Your task to perform on an android device: Turn off the flashlight Image 0: 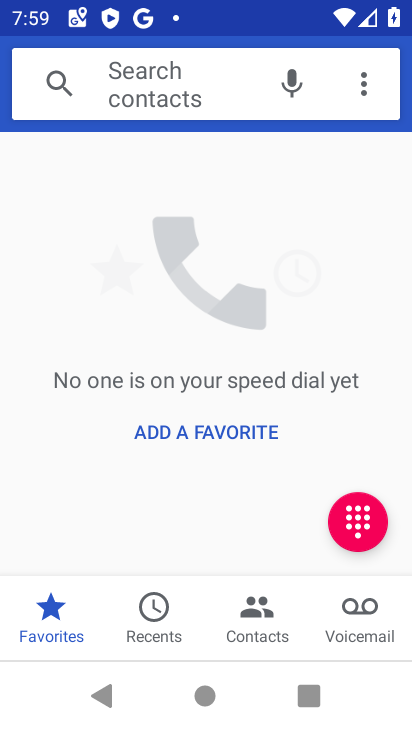
Step 0: press back button
Your task to perform on an android device: Turn off the flashlight Image 1: 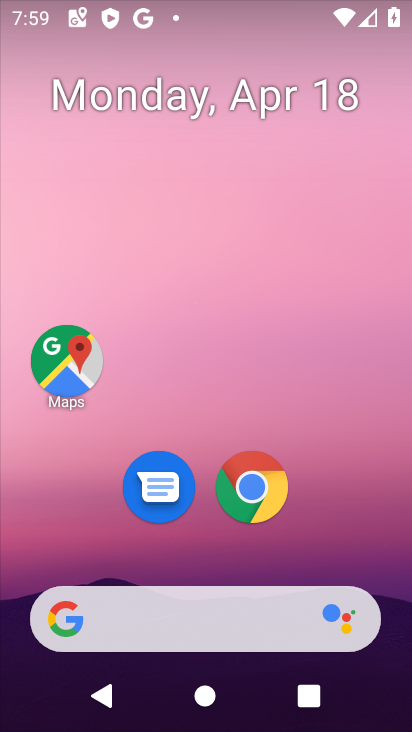
Step 1: drag from (204, 725) to (205, 79)
Your task to perform on an android device: Turn off the flashlight Image 2: 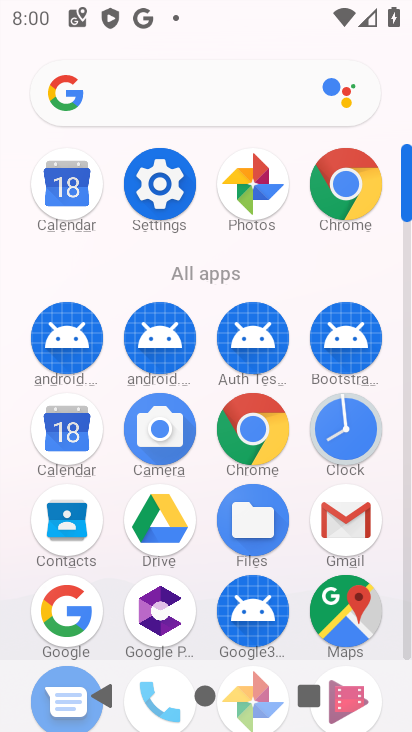
Step 2: click (159, 183)
Your task to perform on an android device: Turn off the flashlight Image 3: 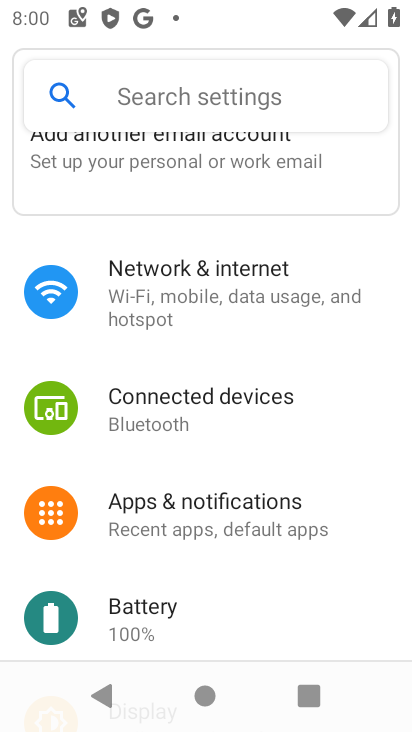
Step 3: task complete